Your task to perform on an android device: What's on my calendar tomorrow? Image 0: 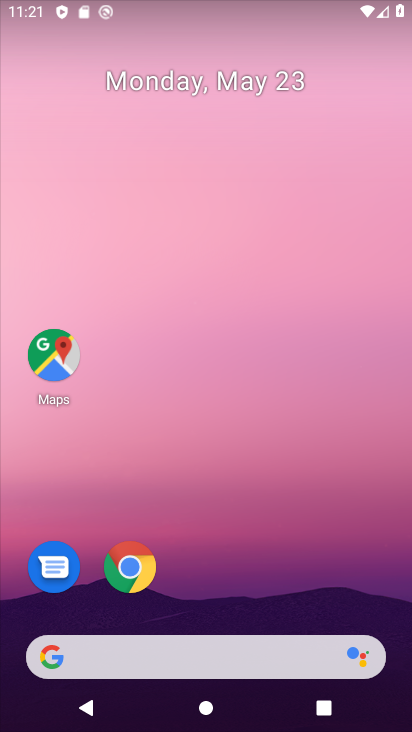
Step 0: drag from (314, 573) to (313, 161)
Your task to perform on an android device: What's on my calendar tomorrow? Image 1: 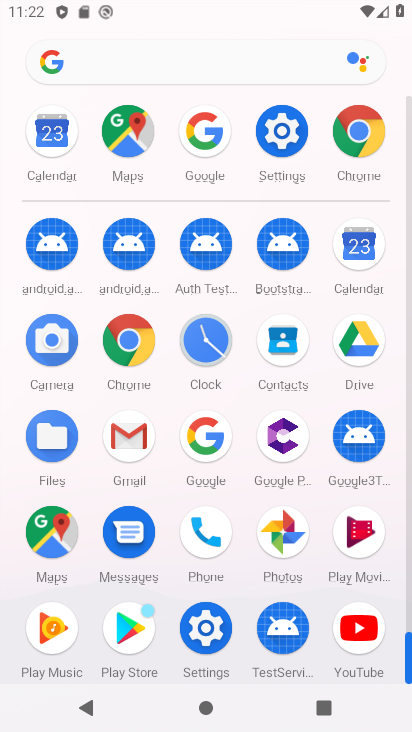
Step 1: click (366, 259)
Your task to perform on an android device: What's on my calendar tomorrow? Image 2: 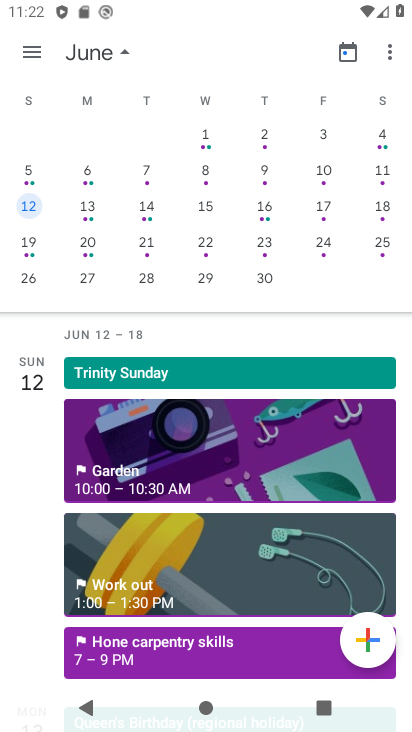
Step 2: drag from (106, 212) to (411, 220)
Your task to perform on an android device: What's on my calendar tomorrow? Image 3: 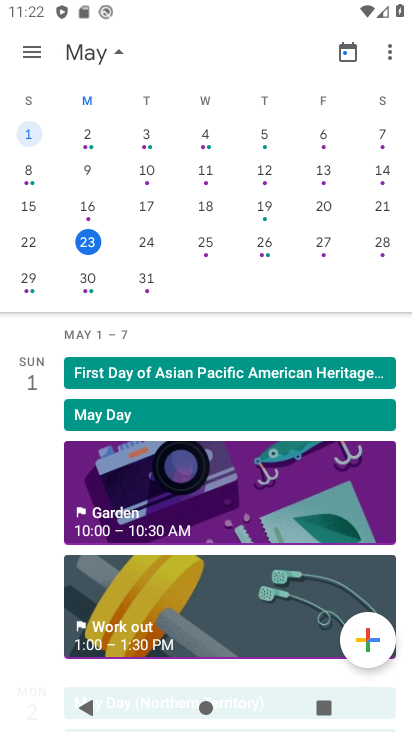
Step 3: click (149, 246)
Your task to perform on an android device: What's on my calendar tomorrow? Image 4: 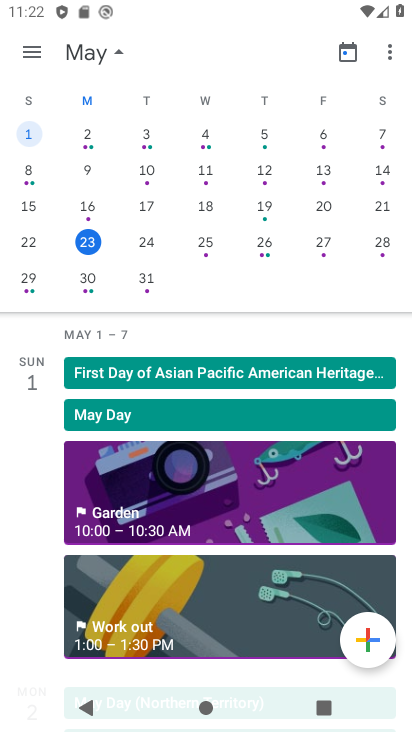
Step 4: task complete